Your task to perform on an android device: turn notification dots on Image 0: 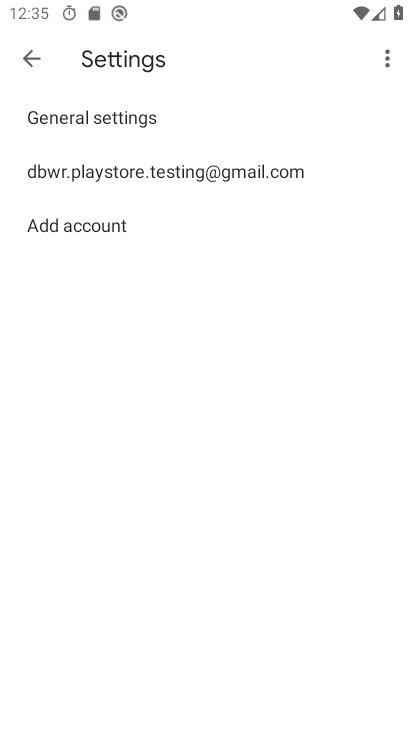
Step 0: press home button
Your task to perform on an android device: turn notification dots on Image 1: 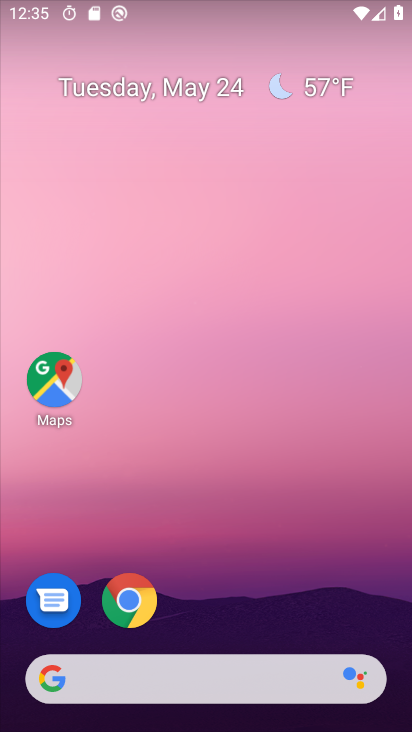
Step 1: drag from (227, 535) to (287, 60)
Your task to perform on an android device: turn notification dots on Image 2: 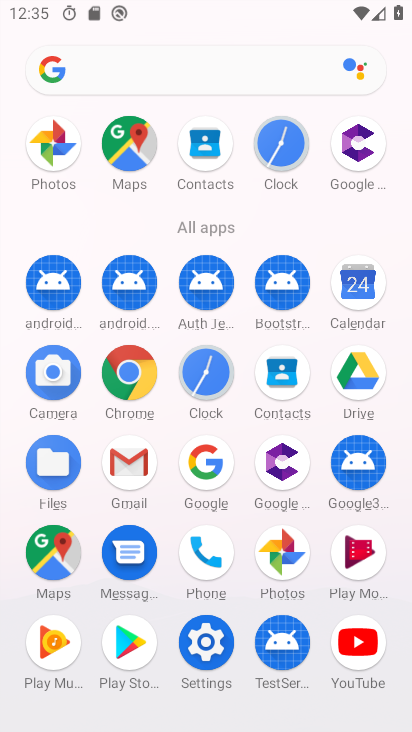
Step 2: click (204, 645)
Your task to perform on an android device: turn notification dots on Image 3: 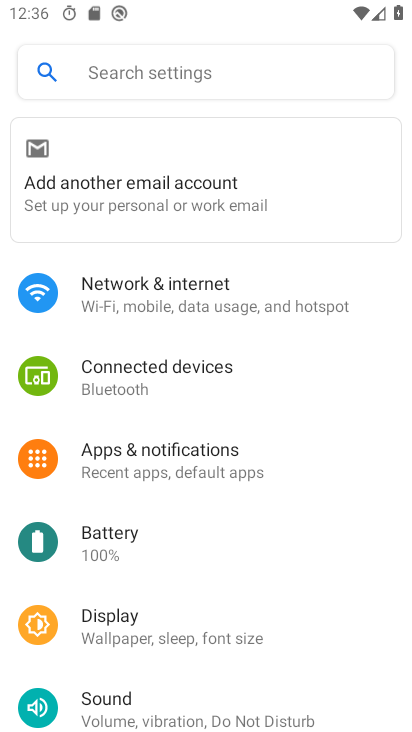
Step 3: click (169, 447)
Your task to perform on an android device: turn notification dots on Image 4: 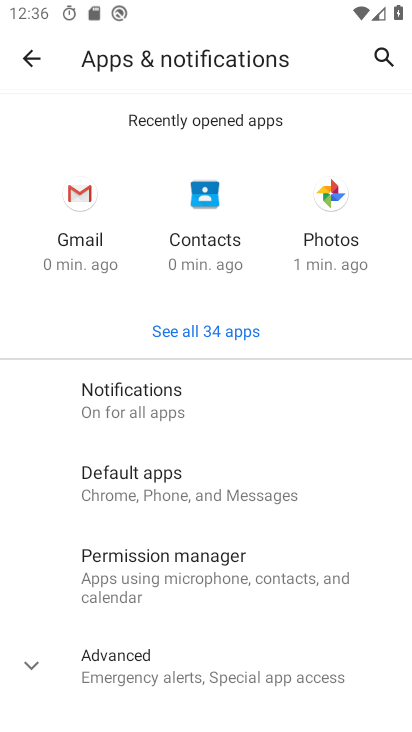
Step 4: click (179, 403)
Your task to perform on an android device: turn notification dots on Image 5: 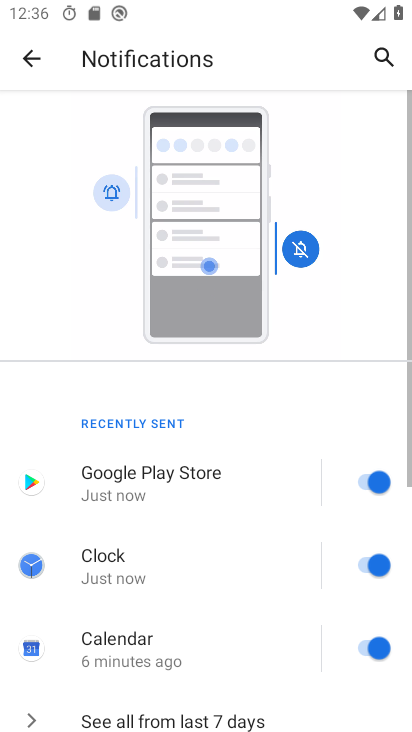
Step 5: drag from (183, 697) to (277, 132)
Your task to perform on an android device: turn notification dots on Image 6: 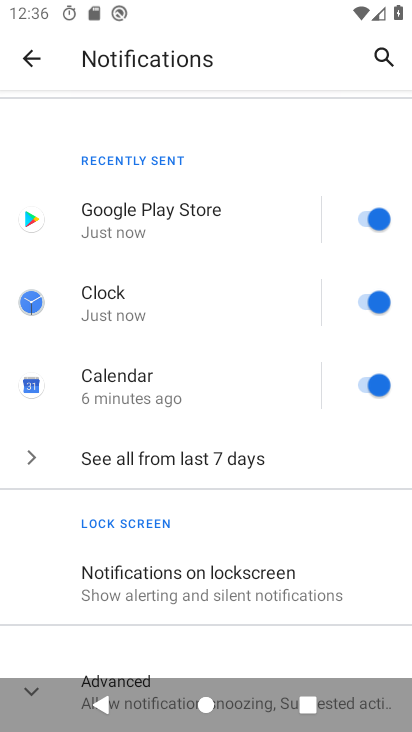
Step 6: drag from (189, 577) to (244, 171)
Your task to perform on an android device: turn notification dots on Image 7: 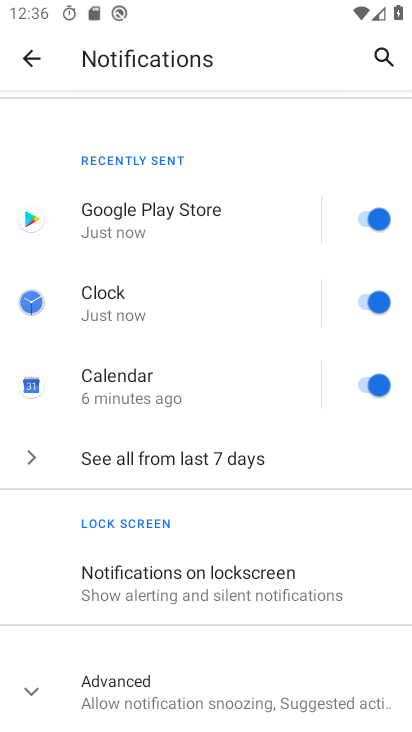
Step 7: click (124, 680)
Your task to perform on an android device: turn notification dots on Image 8: 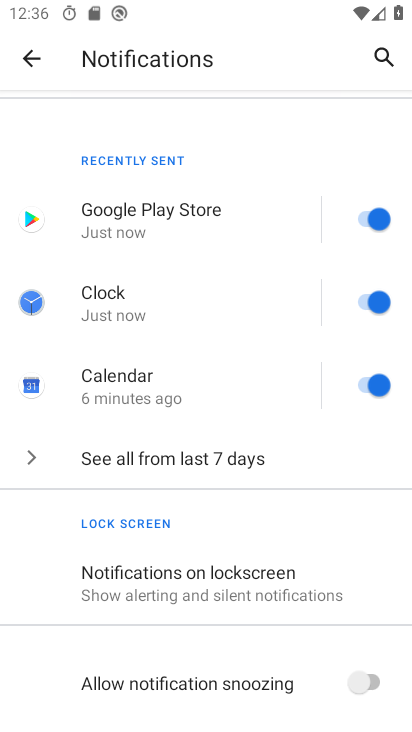
Step 8: task complete